Your task to perform on an android device: Open settings on Google Maps Image 0: 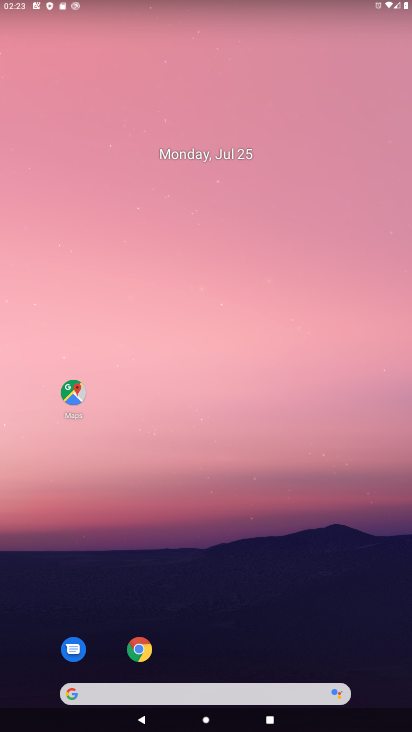
Step 0: click (73, 392)
Your task to perform on an android device: Open settings on Google Maps Image 1: 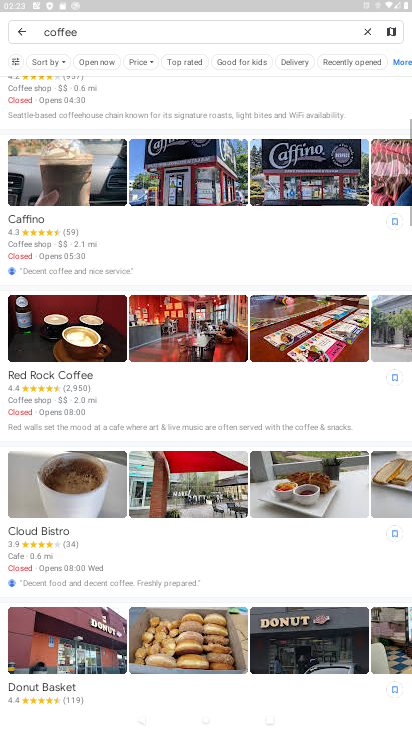
Step 1: click (367, 27)
Your task to perform on an android device: Open settings on Google Maps Image 2: 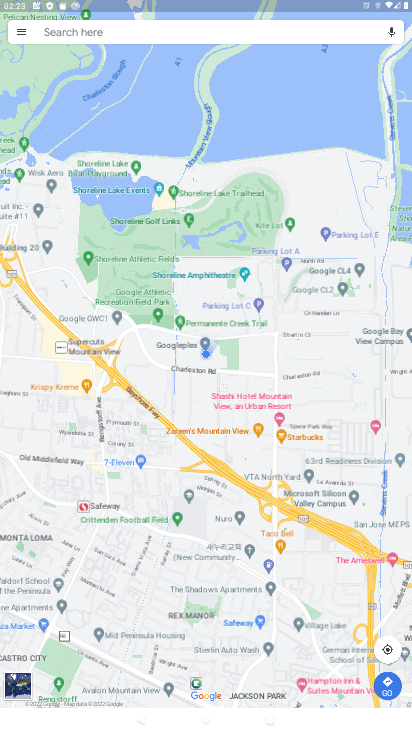
Step 2: click (20, 30)
Your task to perform on an android device: Open settings on Google Maps Image 3: 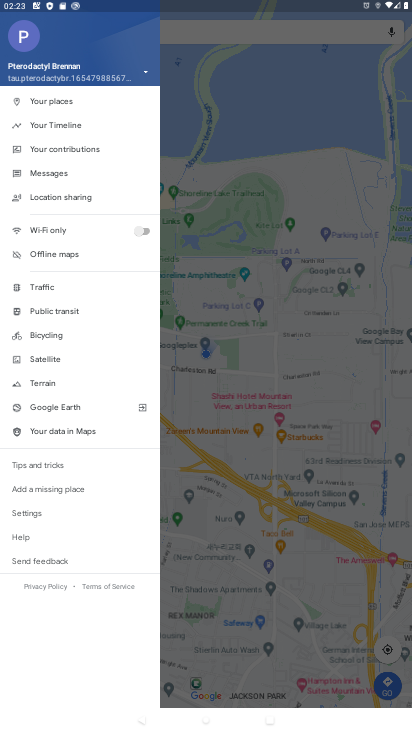
Step 3: click (30, 503)
Your task to perform on an android device: Open settings on Google Maps Image 4: 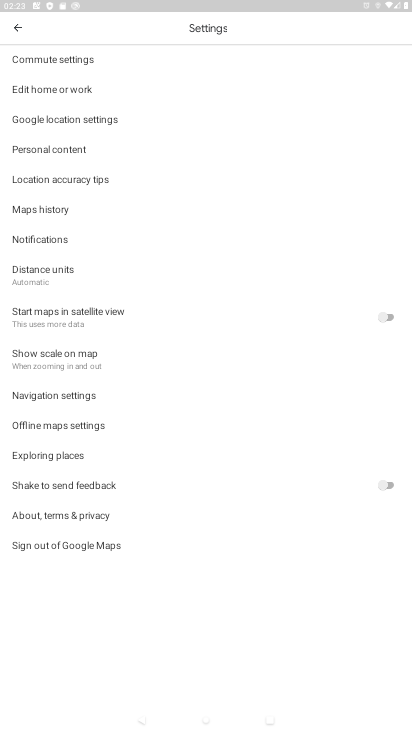
Step 4: task complete